Your task to perform on an android device: set default search engine in the chrome app Image 0: 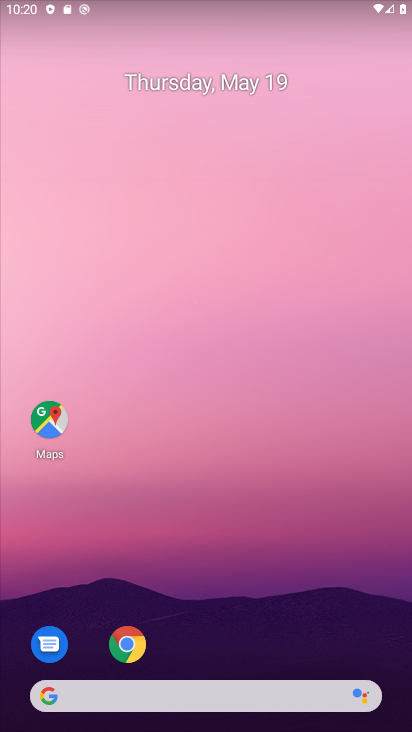
Step 0: drag from (368, 653) to (212, 63)
Your task to perform on an android device: set default search engine in the chrome app Image 1: 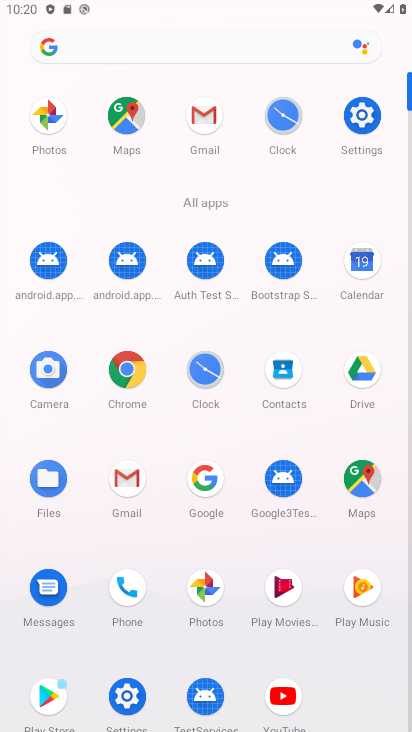
Step 1: click (142, 376)
Your task to perform on an android device: set default search engine in the chrome app Image 2: 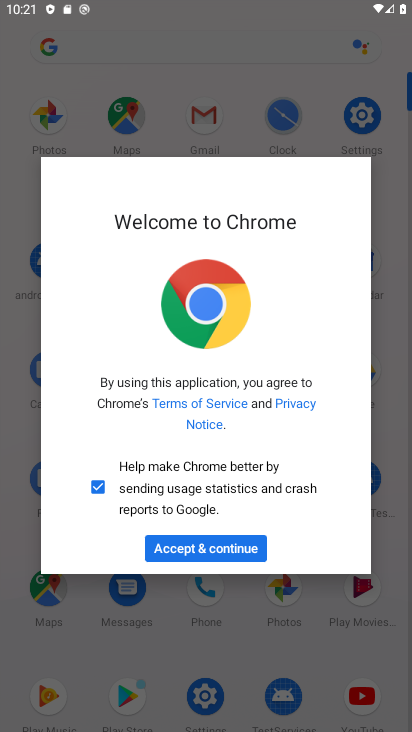
Step 2: click (164, 551)
Your task to perform on an android device: set default search engine in the chrome app Image 3: 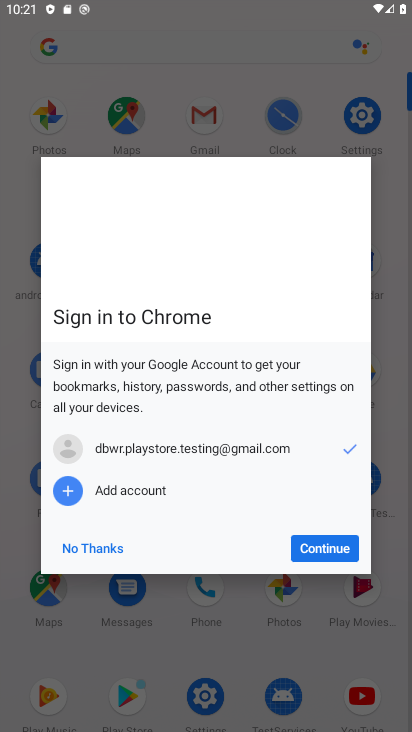
Step 3: click (332, 550)
Your task to perform on an android device: set default search engine in the chrome app Image 4: 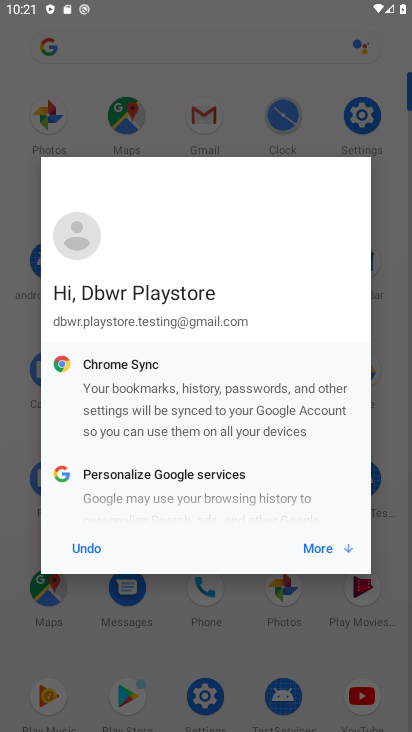
Step 4: drag from (326, 547) to (284, 551)
Your task to perform on an android device: set default search engine in the chrome app Image 5: 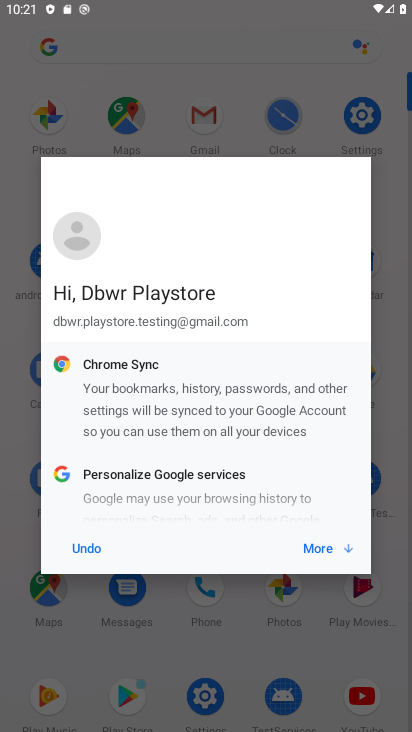
Step 5: click (317, 557)
Your task to perform on an android device: set default search engine in the chrome app Image 6: 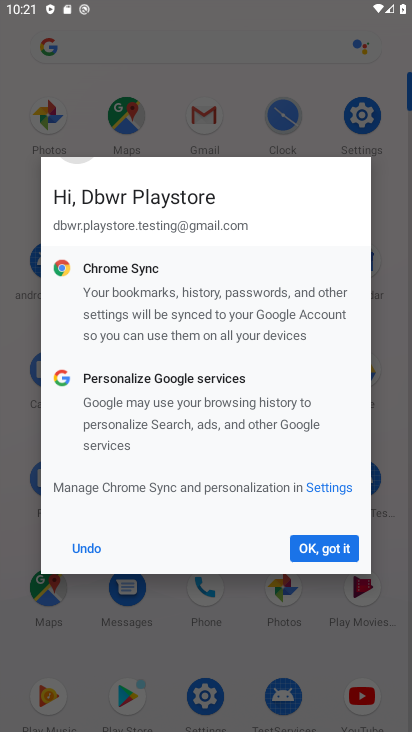
Step 6: click (314, 554)
Your task to perform on an android device: set default search engine in the chrome app Image 7: 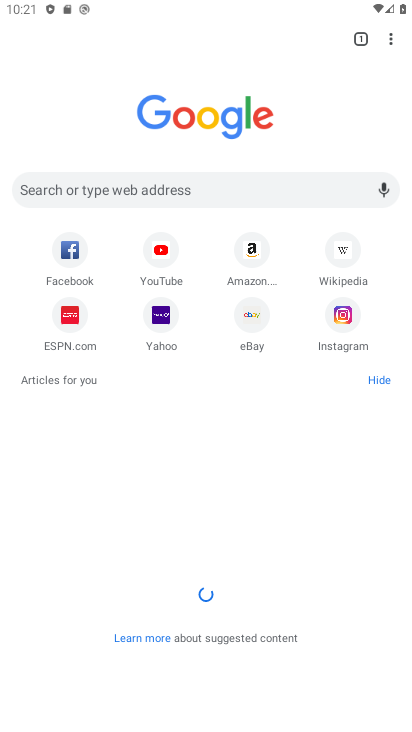
Step 7: drag from (387, 33) to (251, 334)
Your task to perform on an android device: set default search engine in the chrome app Image 8: 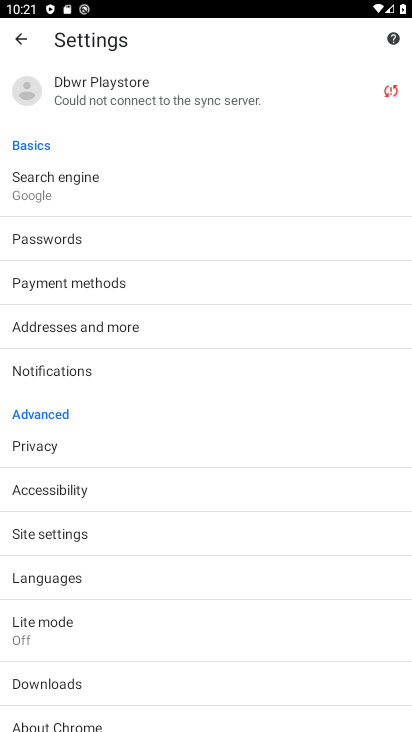
Step 8: click (71, 538)
Your task to perform on an android device: set default search engine in the chrome app Image 9: 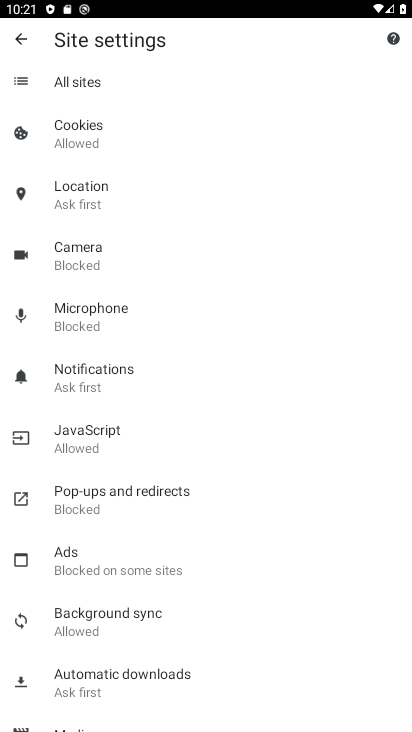
Step 9: click (23, 39)
Your task to perform on an android device: set default search engine in the chrome app Image 10: 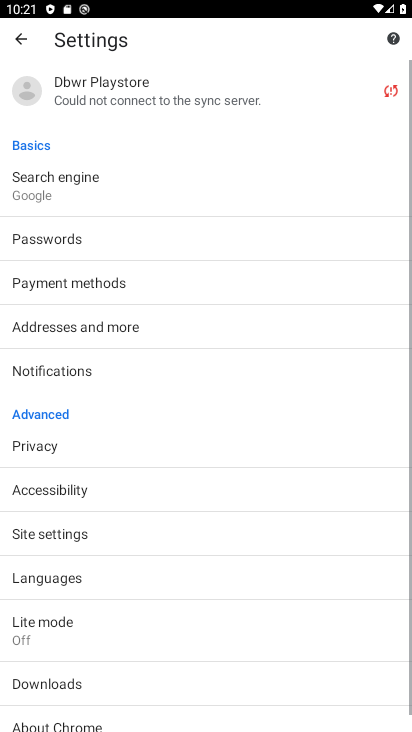
Step 10: click (103, 179)
Your task to perform on an android device: set default search engine in the chrome app Image 11: 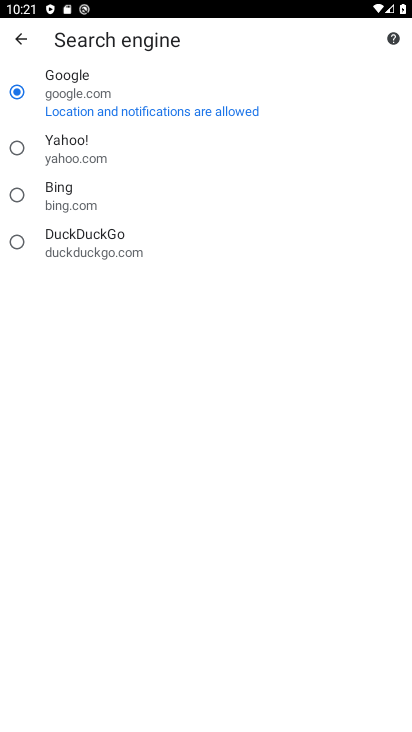
Step 11: task complete